Your task to perform on an android device: Show me the alarms in the clock app Image 0: 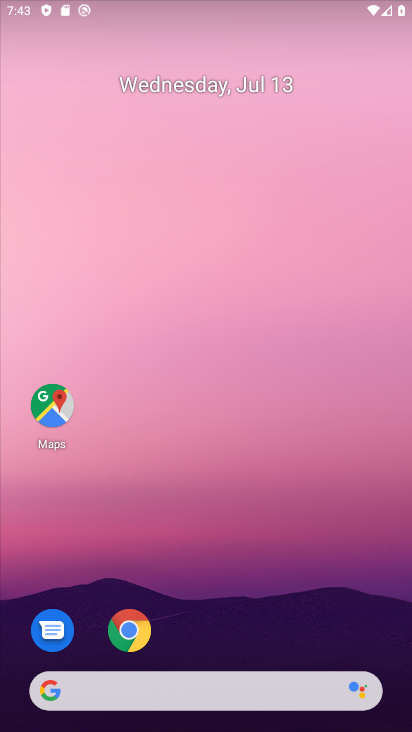
Step 0: drag from (226, 629) to (240, 226)
Your task to perform on an android device: Show me the alarms in the clock app Image 1: 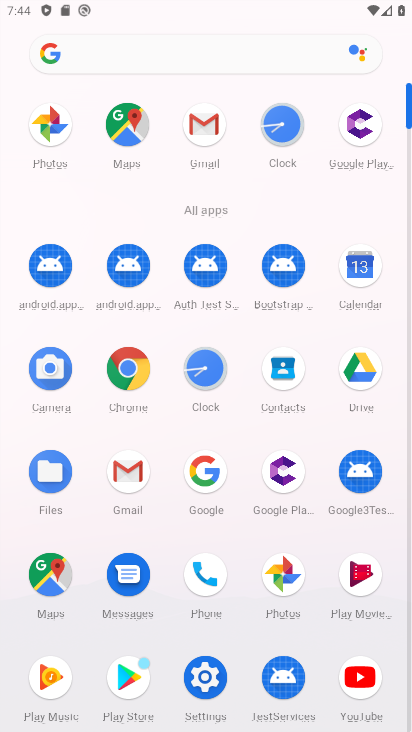
Step 1: click (209, 366)
Your task to perform on an android device: Show me the alarms in the clock app Image 2: 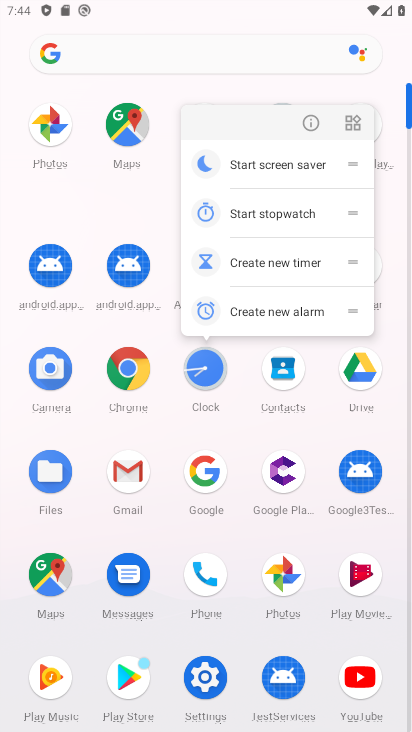
Step 2: click (308, 129)
Your task to perform on an android device: Show me the alarms in the clock app Image 3: 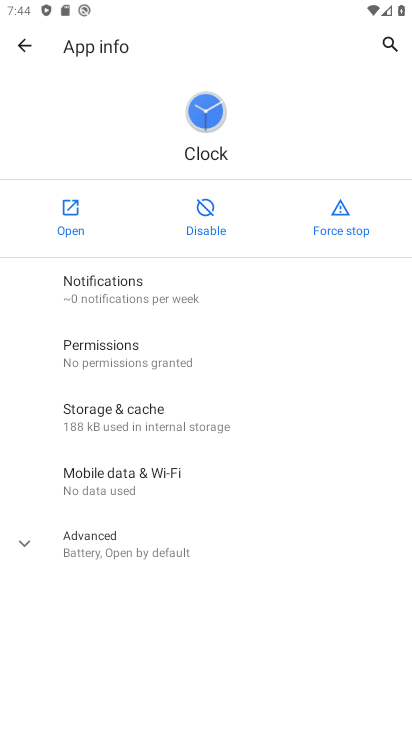
Step 3: click (77, 221)
Your task to perform on an android device: Show me the alarms in the clock app Image 4: 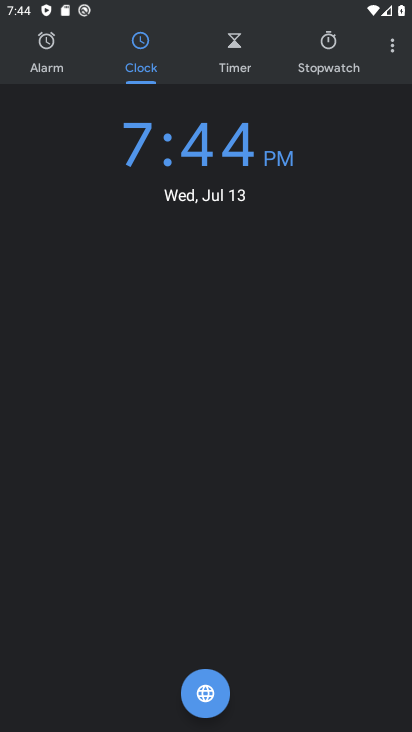
Step 4: click (149, 50)
Your task to perform on an android device: Show me the alarms in the clock app Image 5: 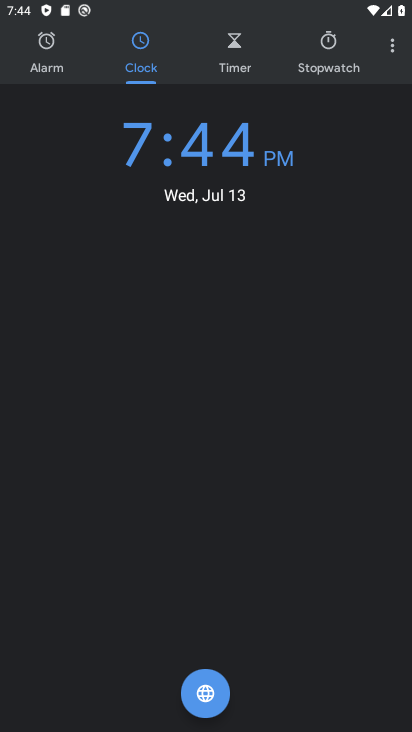
Step 5: click (67, 63)
Your task to perform on an android device: Show me the alarms in the clock app Image 6: 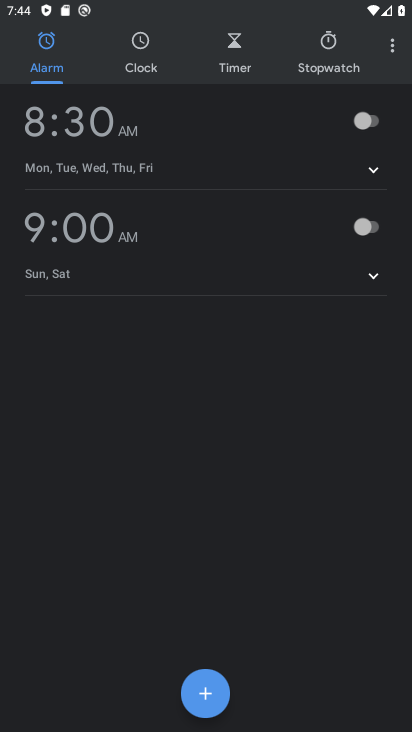
Step 6: task complete